Your task to perform on an android device: Open the Play Movies app and select the watchlist tab. Image 0: 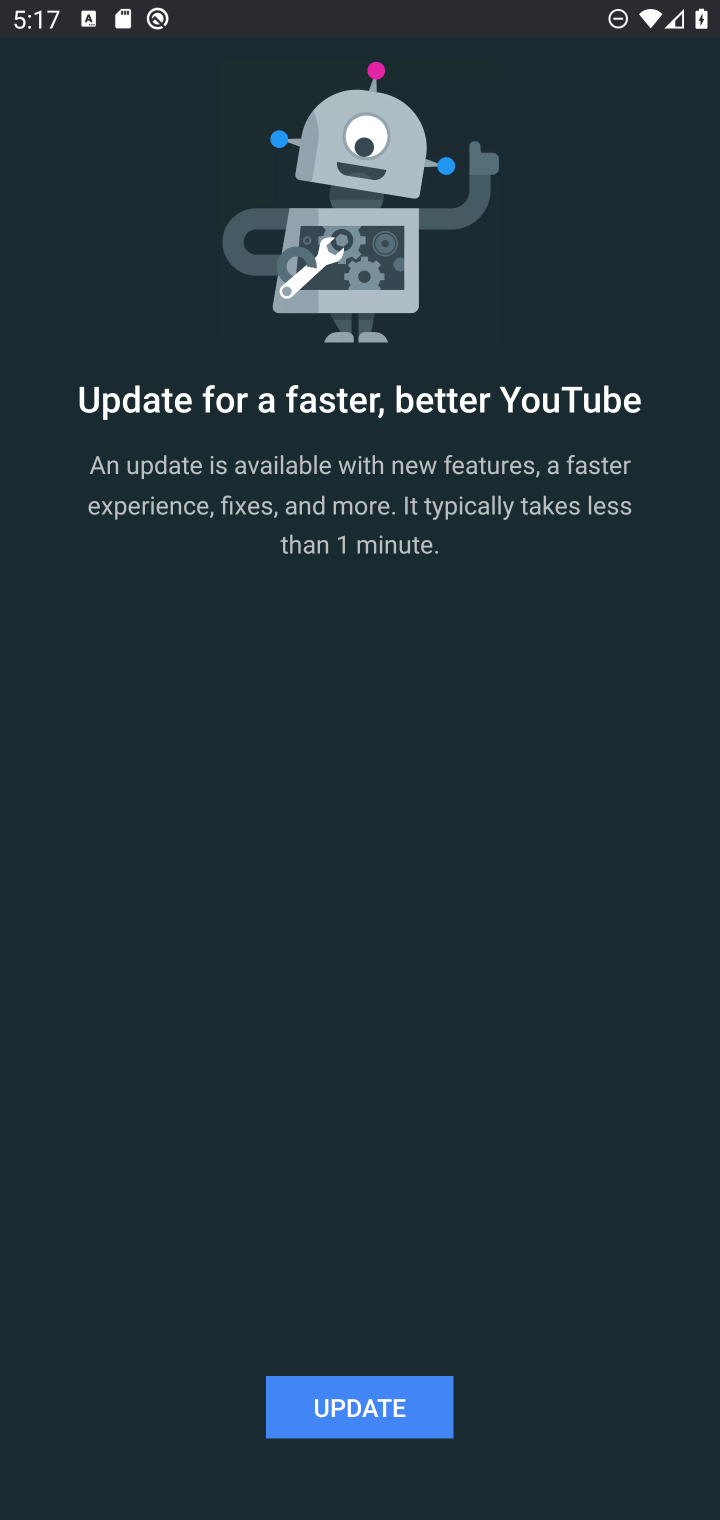
Step 0: press home button
Your task to perform on an android device: Open the Play Movies app and select the watchlist tab. Image 1: 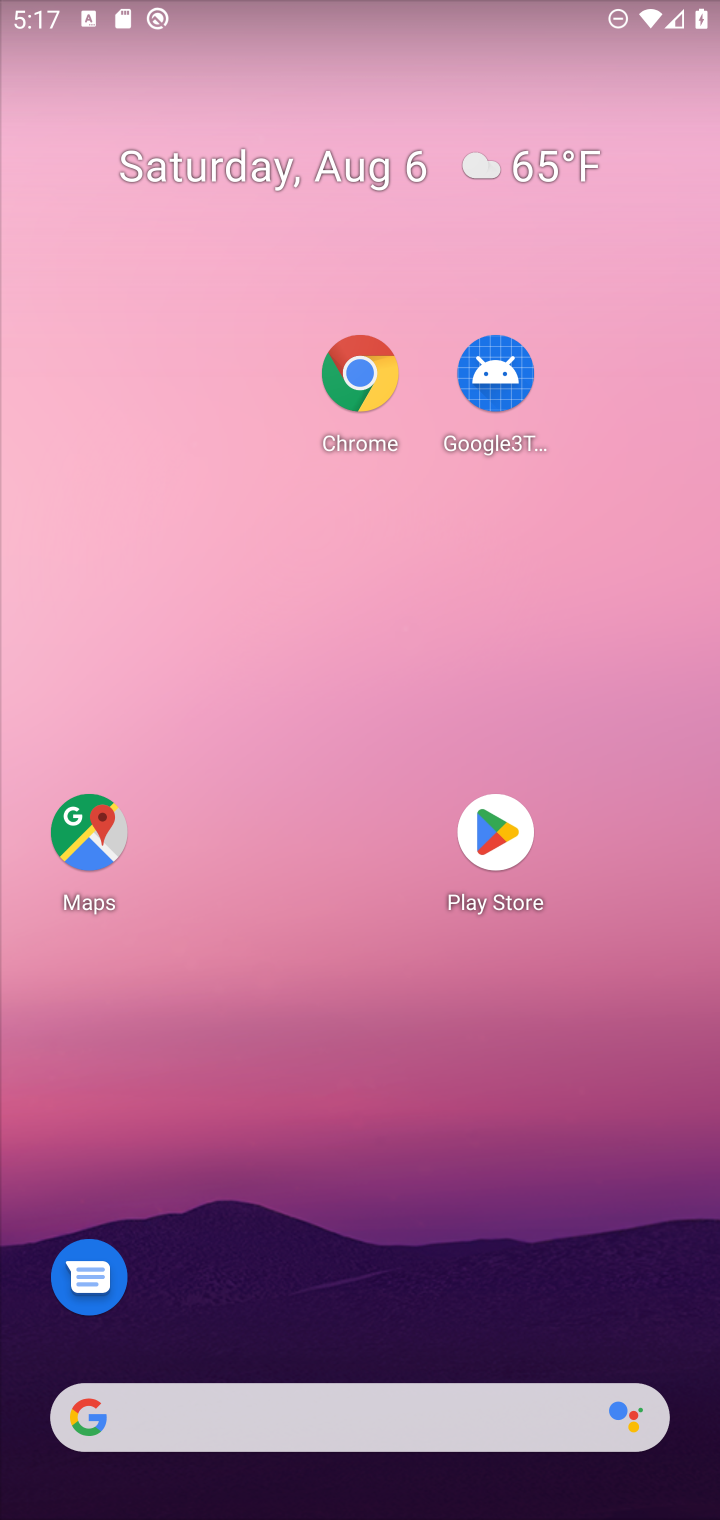
Step 1: drag from (417, 1426) to (388, 253)
Your task to perform on an android device: Open the Play Movies app and select the watchlist tab. Image 2: 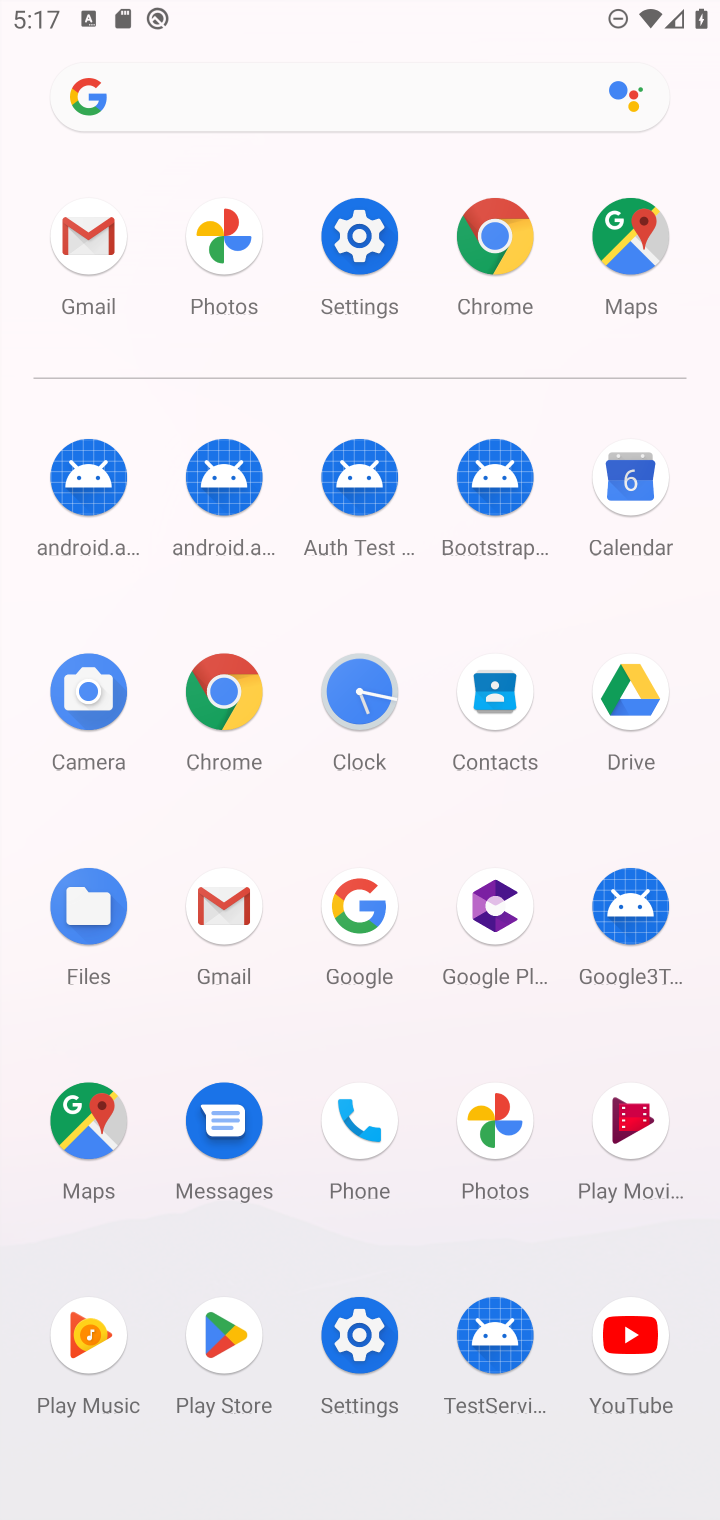
Step 2: click (631, 1089)
Your task to perform on an android device: Open the Play Movies app and select the watchlist tab. Image 3: 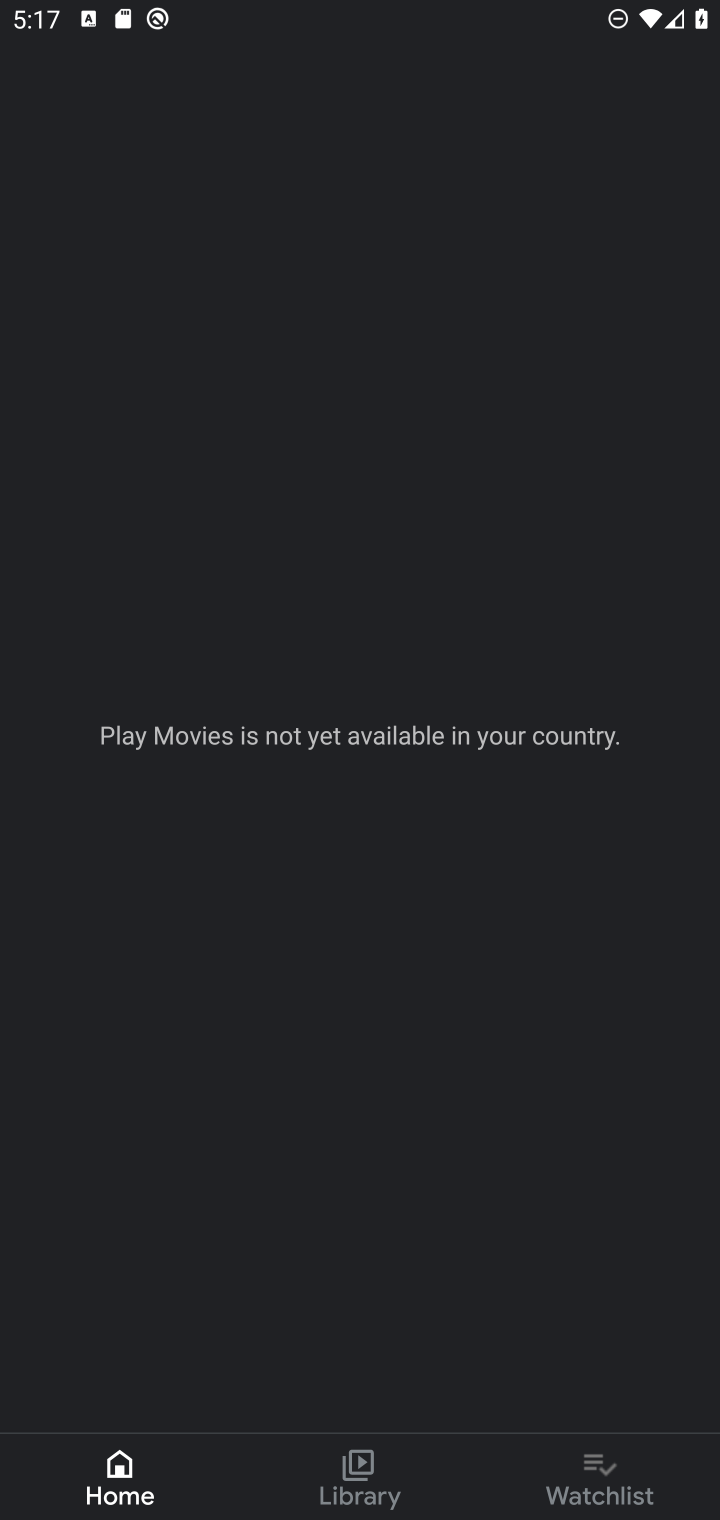
Step 3: click (597, 1480)
Your task to perform on an android device: Open the Play Movies app and select the watchlist tab. Image 4: 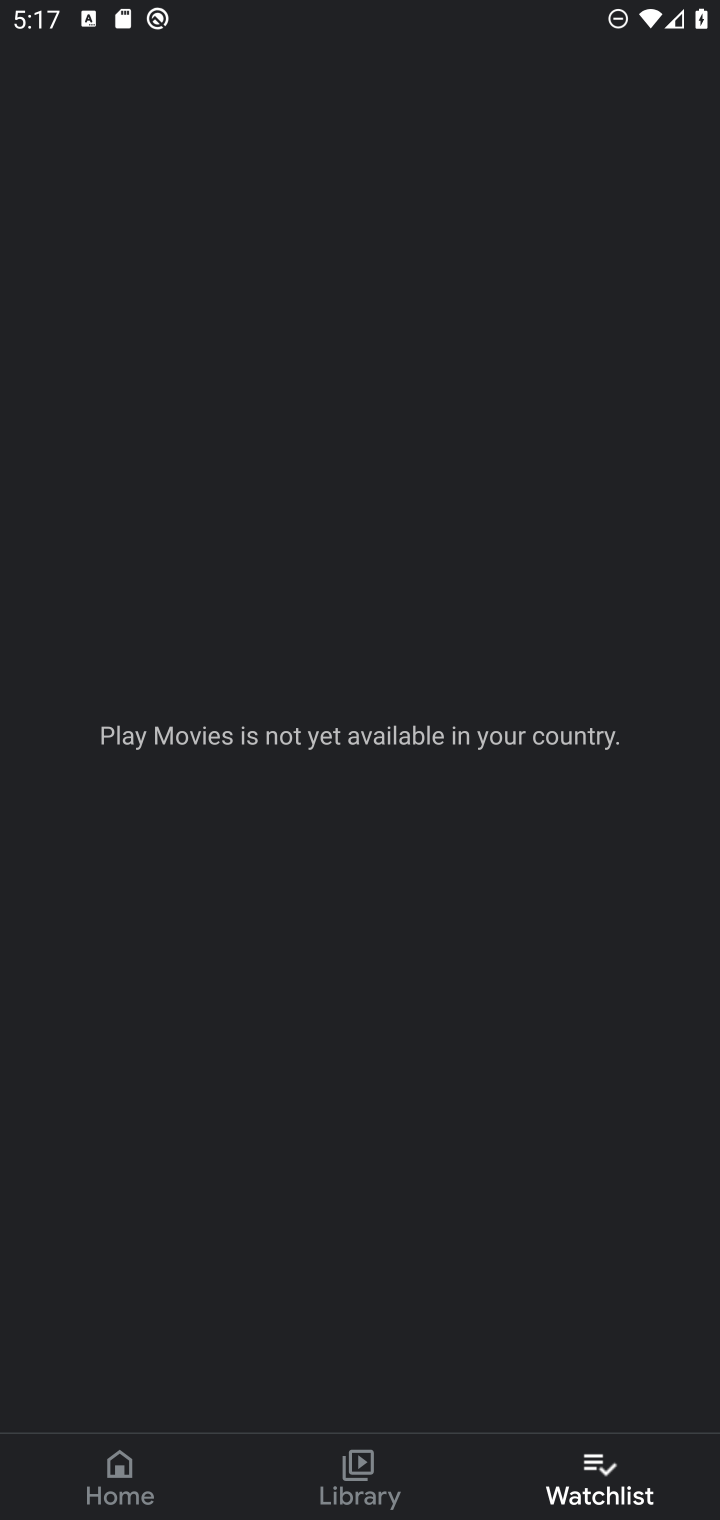
Step 4: task complete